Your task to perform on an android device: Add "jbl charge 4" to the cart on newegg.com, then select checkout. Image 0: 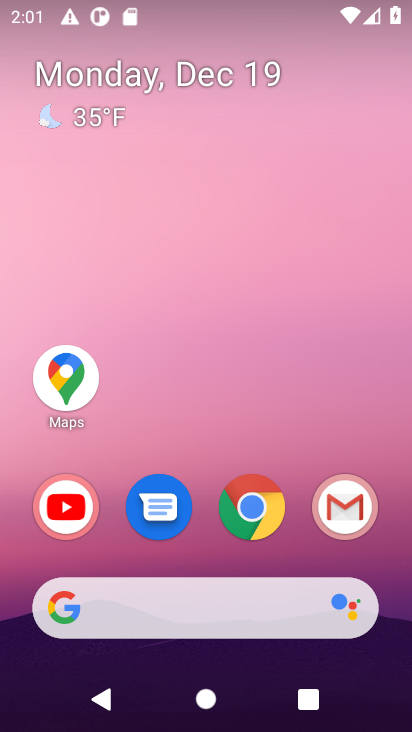
Step 0: click (251, 512)
Your task to perform on an android device: Add "jbl charge 4" to the cart on newegg.com, then select checkout. Image 1: 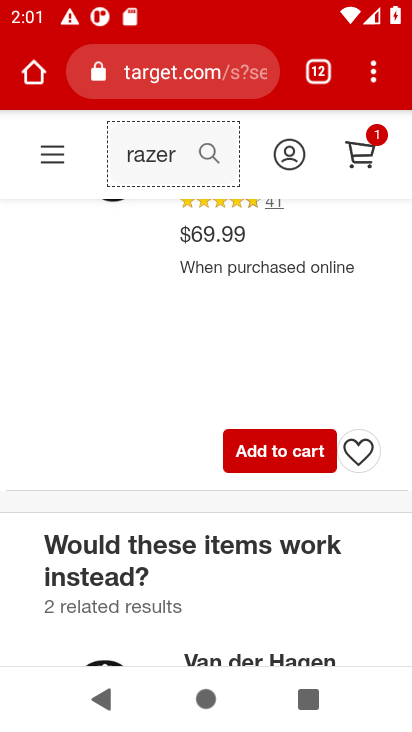
Step 1: click (156, 75)
Your task to perform on an android device: Add "jbl charge 4" to the cart on newegg.com, then select checkout. Image 2: 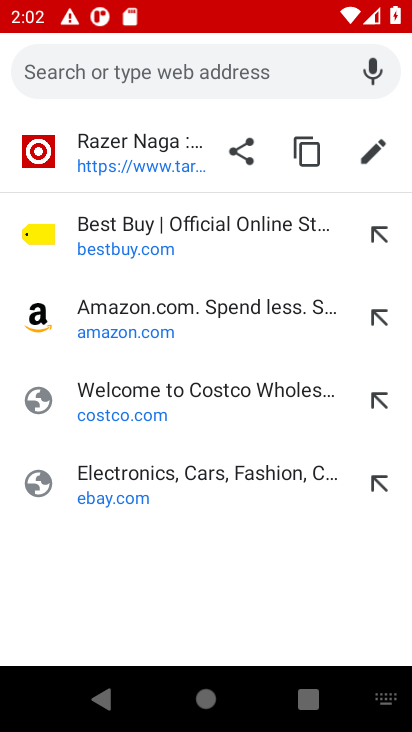
Step 2: type "newegg.com"
Your task to perform on an android device: Add "jbl charge 4" to the cart on newegg.com, then select checkout. Image 3: 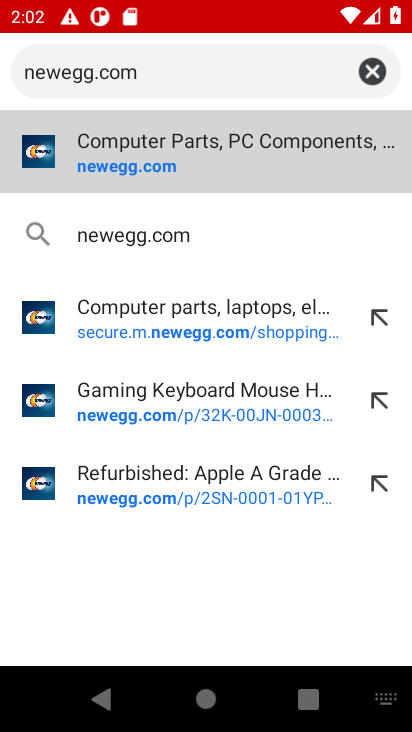
Step 3: click (112, 166)
Your task to perform on an android device: Add "jbl charge 4" to the cart on newegg.com, then select checkout. Image 4: 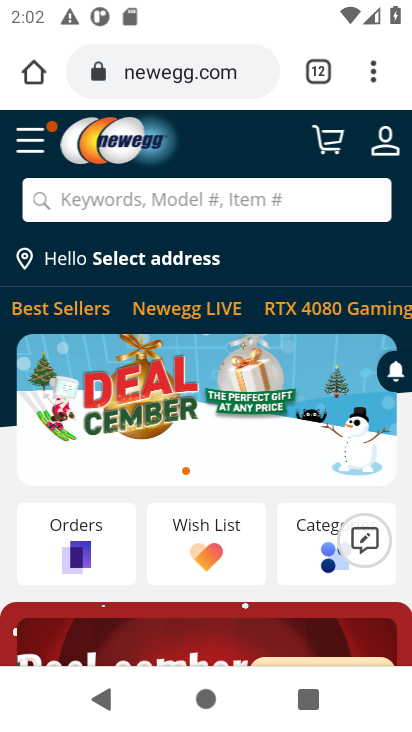
Step 4: click (96, 206)
Your task to perform on an android device: Add "jbl charge 4" to the cart on newegg.com, then select checkout. Image 5: 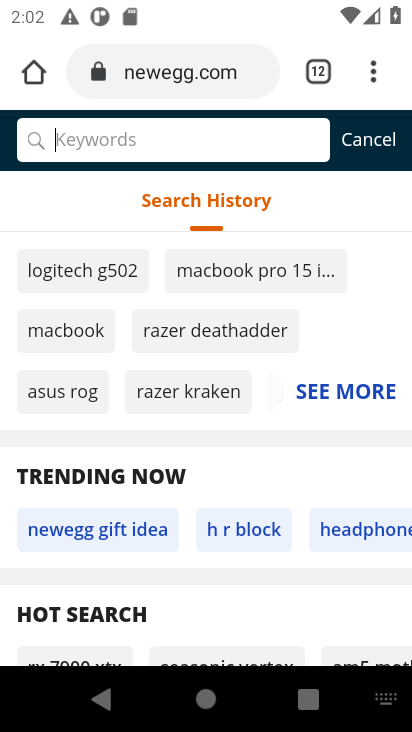
Step 5: type "jbl charge 4"
Your task to perform on an android device: Add "jbl charge 4" to the cart on newegg.com, then select checkout. Image 6: 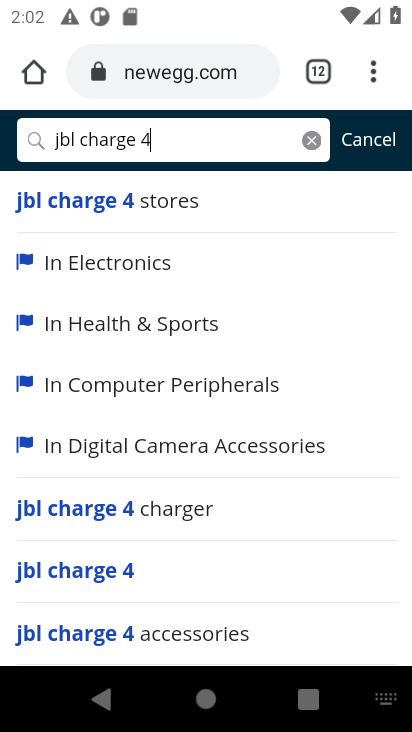
Step 6: click (110, 570)
Your task to perform on an android device: Add "jbl charge 4" to the cart on newegg.com, then select checkout. Image 7: 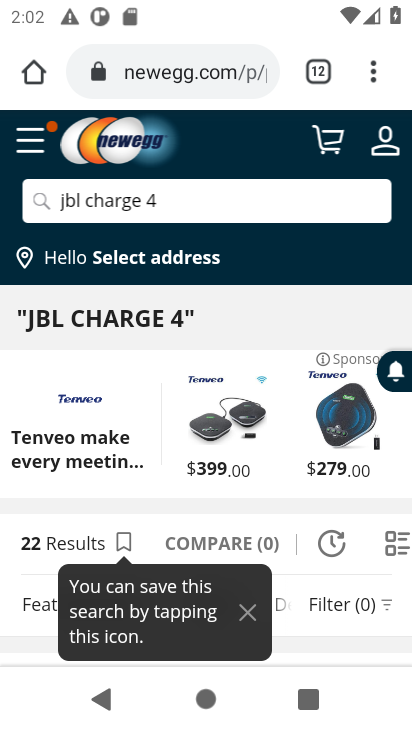
Step 7: drag from (144, 526) to (147, 242)
Your task to perform on an android device: Add "jbl charge 4" to the cart on newegg.com, then select checkout. Image 8: 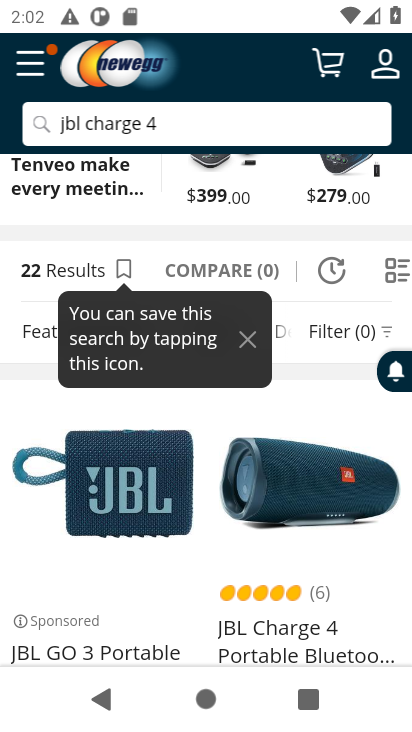
Step 8: drag from (145, 486) to (118, 217)
Your task to perform on an android device: Add "jbl charge 4" to the cart on newegg.com, then select checkout. Image 9: 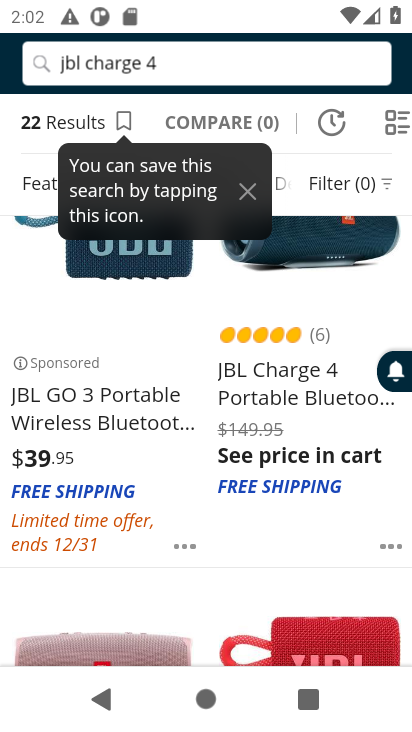
Step 9: click (291, 395)
Your task to perform on an android device: Add "jbl charge 4" to the cart on newegg.com, then select checkout. Image 10: 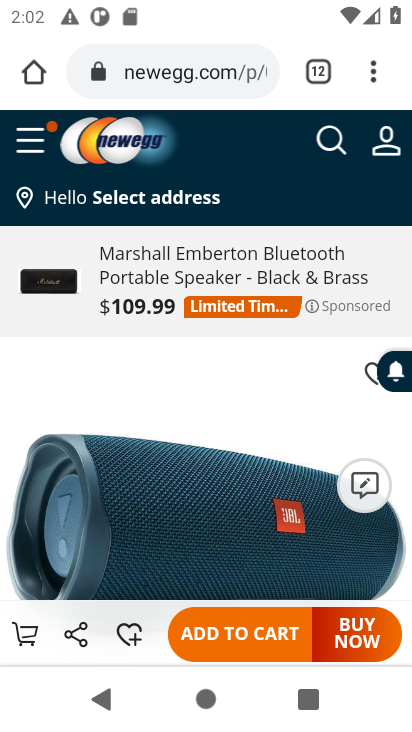
Step 10: click (231, 633)
Your task to perform on an android device: Add "jbl charge 4" to the cart on newegg.com, then select checkout. Image 11: 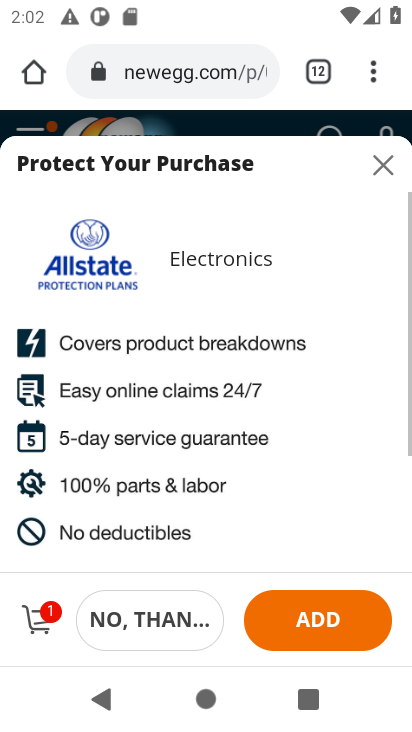
Step 11: click (32, 623)
Your task to perform on an android device: Add "jbl charge 4" to the cart on newegg.com, then select checkout. Image 12: 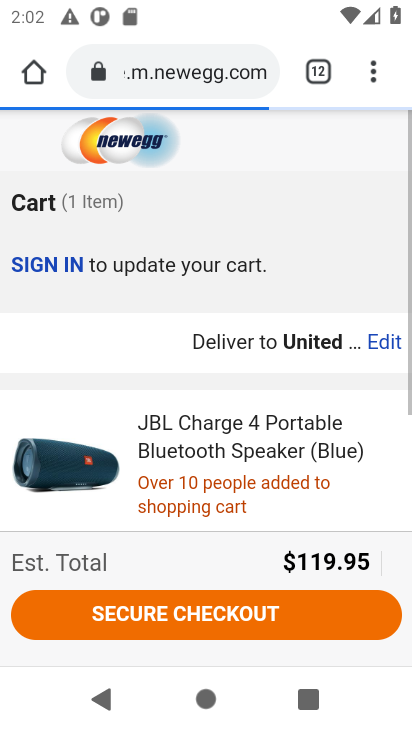
Step 12: click (155, 616)
Your task to perform on an android device: Add "jbl charge 4" to the cart on newegg.com, then select checkout. Image 13: 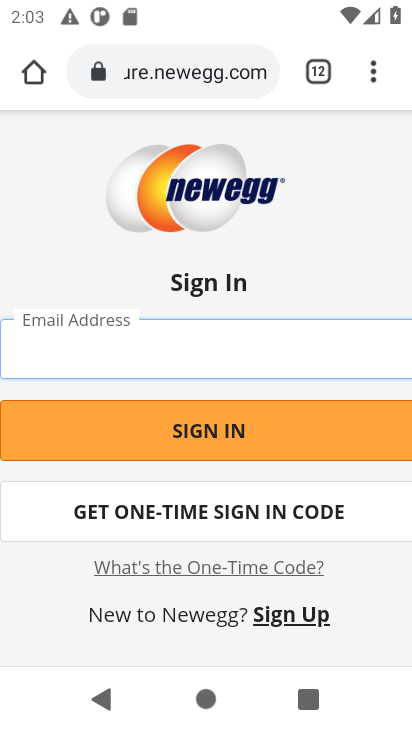
Step 13: task complete